Your task to perform on an android device: turn off translation in the chrome app Image 0: 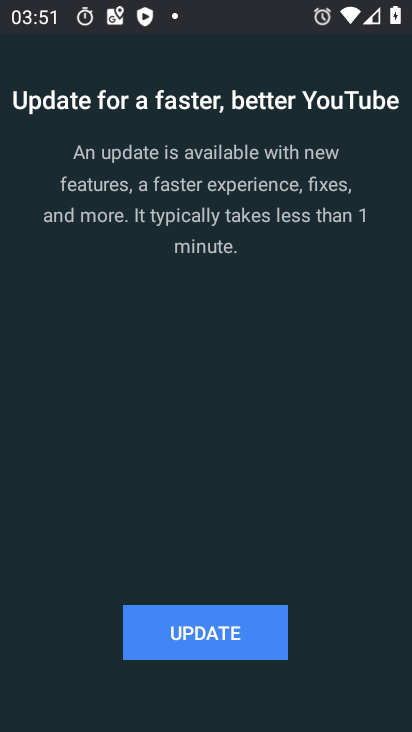
Step 0: press home button
Your task to perform on an android device: turn off translation in the chrome app Image 1: 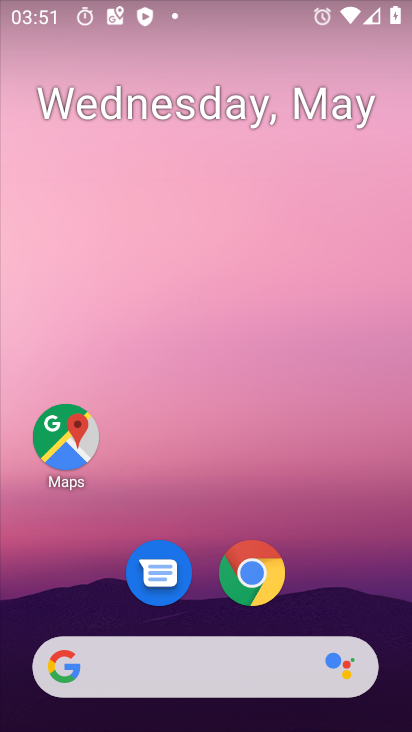
Step 1: click (259, 579)
Your task to perform on an android device: turn off translation in the chrome app Image 2: 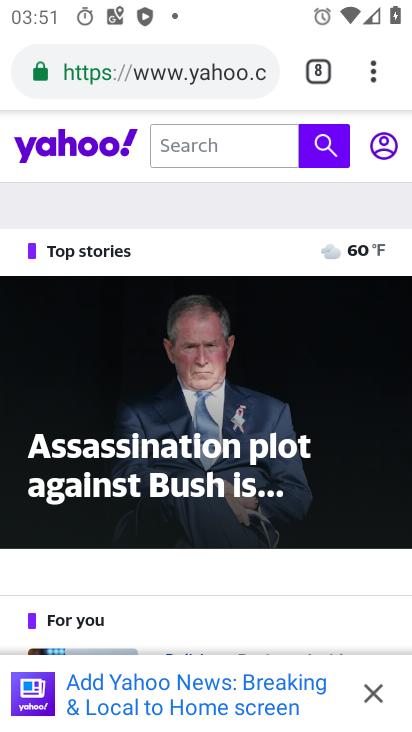
Step 2: click (373, 76)
Your task to perform on an android device: turn off translation in the chrome app Image 3: 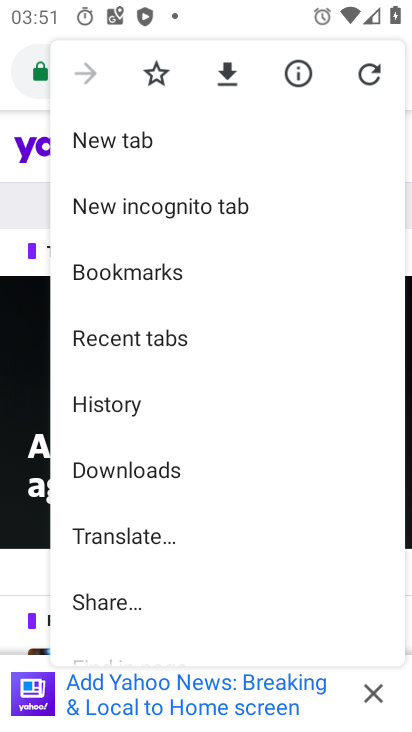
Step 3: drag from (114, 611) to (131, 160)
Your task to perform on an android device: turn off translation in the chrome app Image 4: 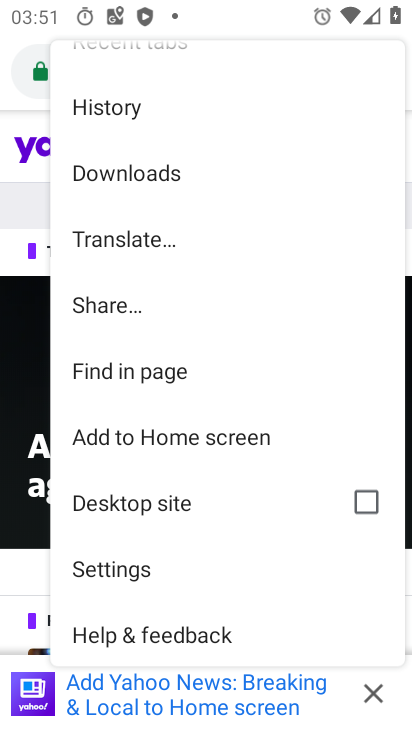
Step 4: click (105, 557)
Your task to perform on an android device: turn off translation in the chrome app Image 5: 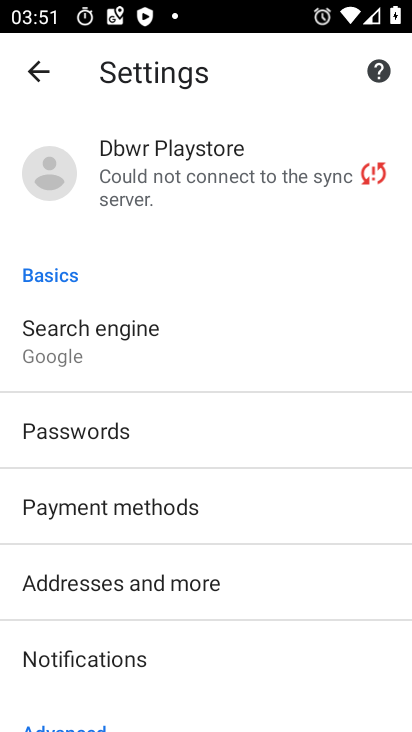
Step 5: drag from (81, 662) to (114, 295)
Your task to perform on an android device: turn off translation in the chrome app Image 6: 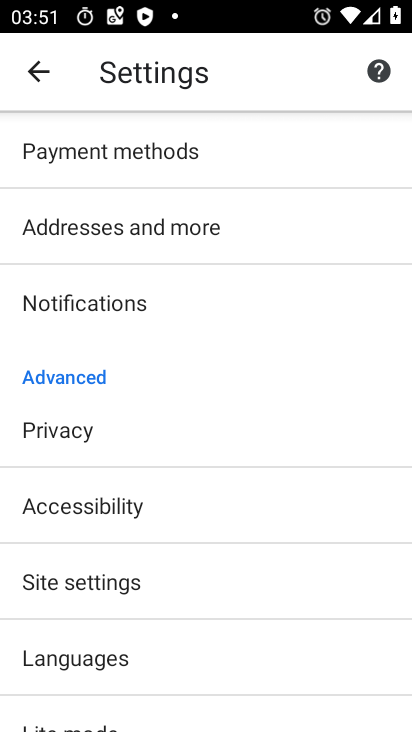
Step 6: click (84, 650)
Your task to perform on an android device: turn off translation in the chrome app Image 7: 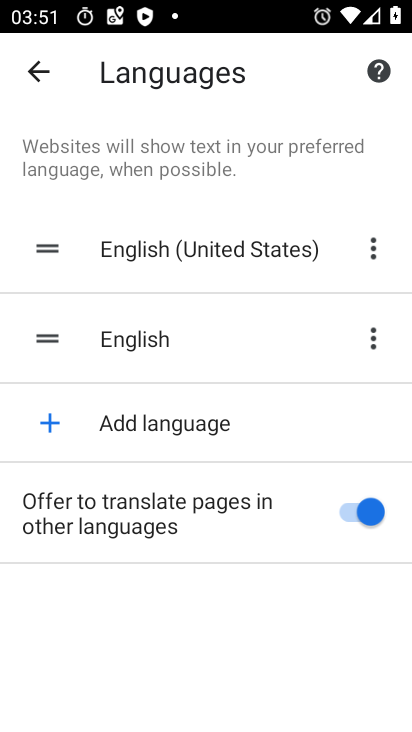
Step 7: click (353, 505)
Your task to perform on an android device: turn off translation in the chrome app Image 8: 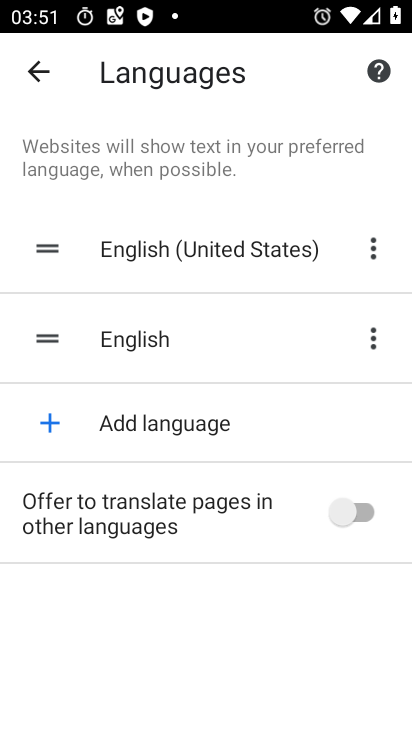
Step 8: task complete